Your task to perform on an android device: turn off picture-in-picture Image 0: 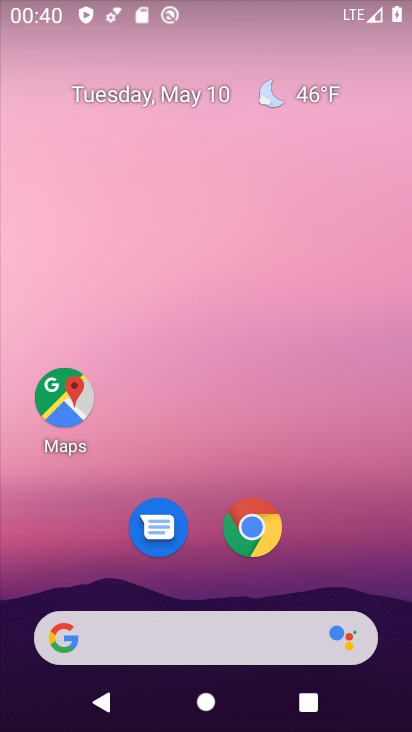
Step 0: drag from (325, 509) to (172, 267)
Your task to perform on an android device: turn off picture-in-picture Image 1: 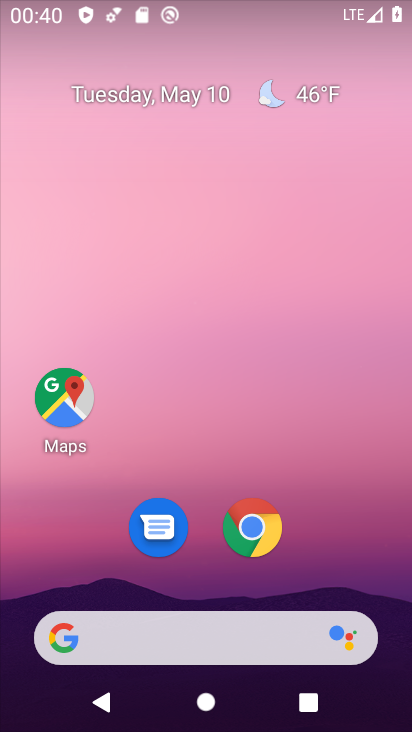
Step 1: drag from (299, 539) to (320, 82)
Your task to perform on an android device: turn off picture-in-picture Image 2: 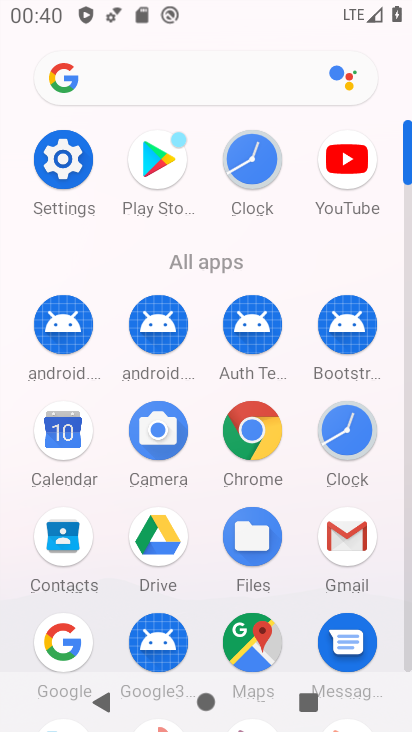
Step 2: click (72, 173)
Your task to perform on an android device: turn off picture-in-picture Image 3: 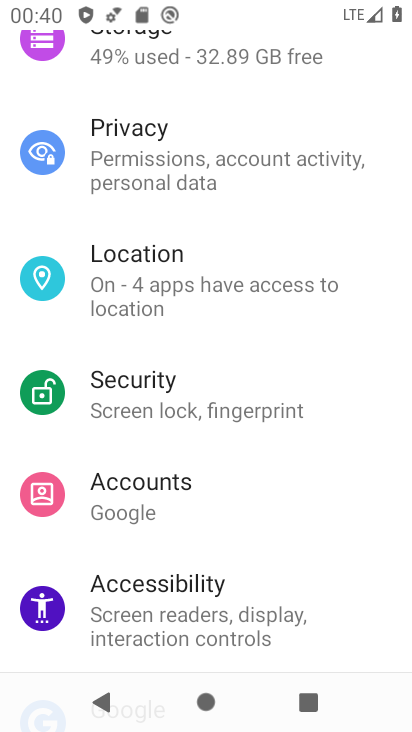
Step 3: drag from (226, 142) to (201, 532)
Your task to perform on an android device: turn off picture-in-picture Image 4: 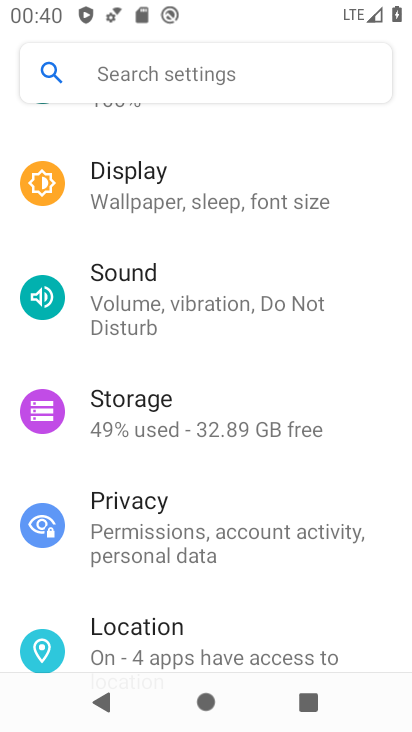
Step 4: drag from (220, 282) to (187, 493)
Your task to perform on an android device: turn off picture-in-picture Image 5: 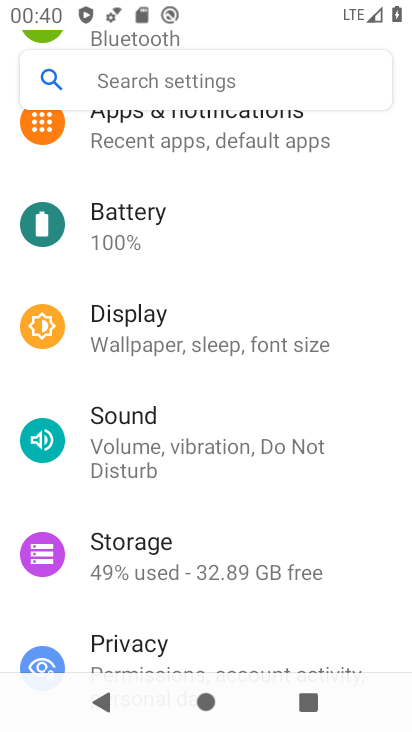
Step 5: click (208, 144)
Your task to perform on an android device: turn off picture-in-picture Image 6: 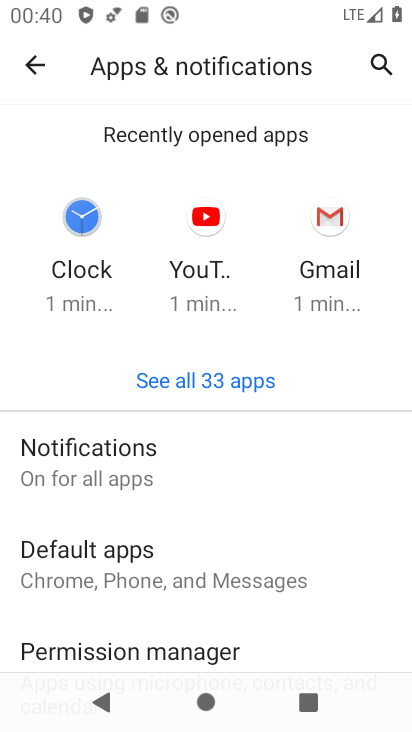
Step 6: drag from (152, 602) to (179, 350)
Your task to perform on an android device: turn off picture-in-picture Image 7: 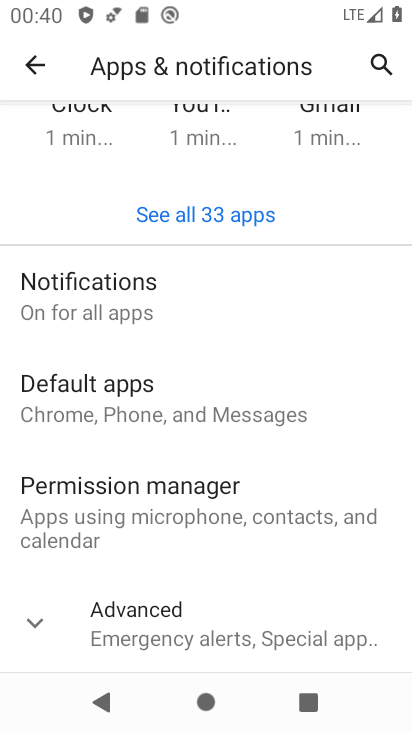
Step 7: drag from (192, 623) to (210, 444)
Your task to perform on an android device: turn off picture-in-picture Image 8: 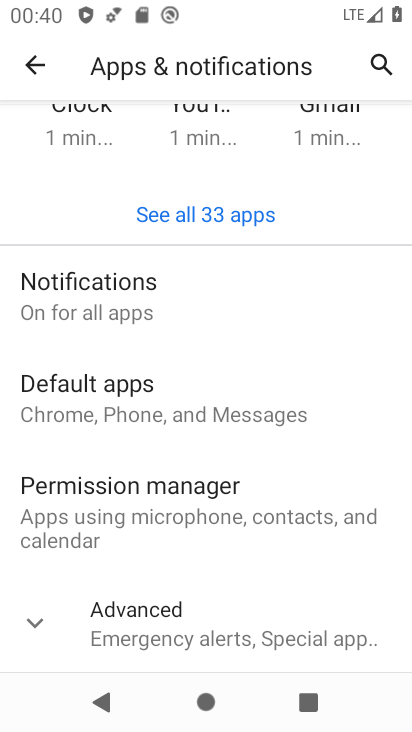
Step 8: click (179, 615)
Your task to perform on an android device: turn off picture-in-picture Image 9: 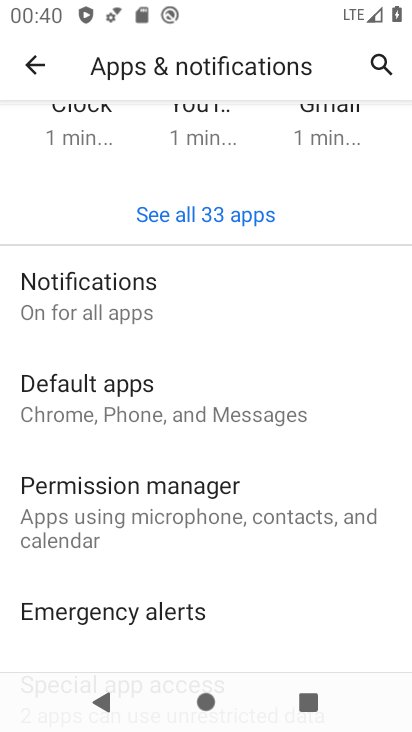
Step 9: drag from (226, 614) to (209, 335)
Your task to perform on an android device: turn off picture-in-picture Image 10: 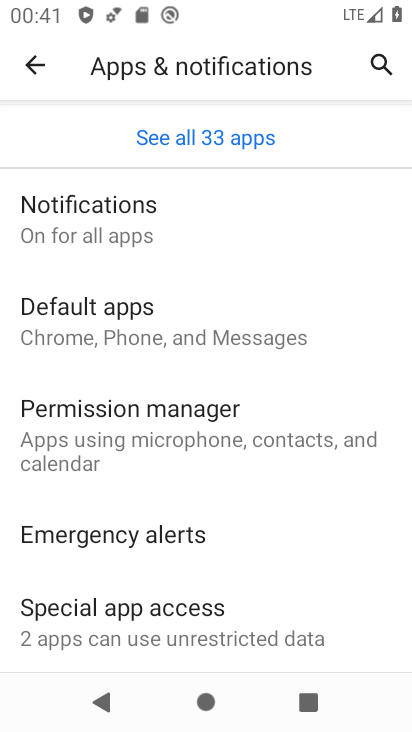
Step 10: click (145, 628)
Your task to perform on an android device: turn off picture-in-picture Image 11: 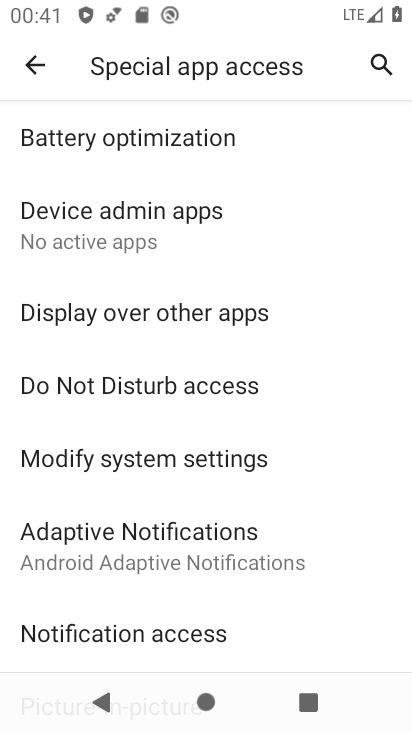
Step 11: drag from (150, 627) to (176, 352)
Your task to perform on an android device: turn off picture-in-picture Image 12: 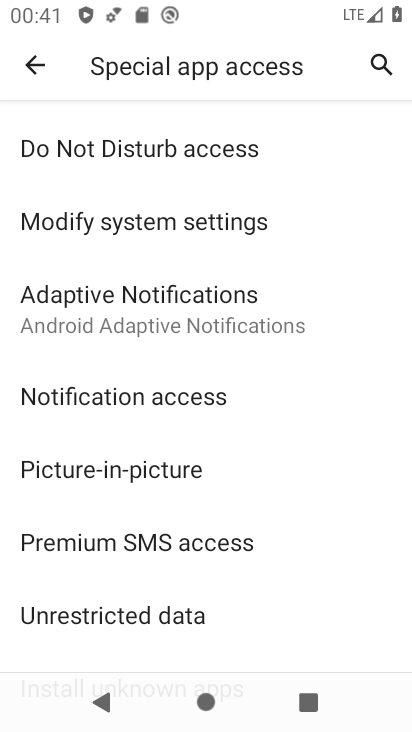
Step 12: click (142, 464)
Your task to perform on an android device: turn off picture-in-picture Image 13: 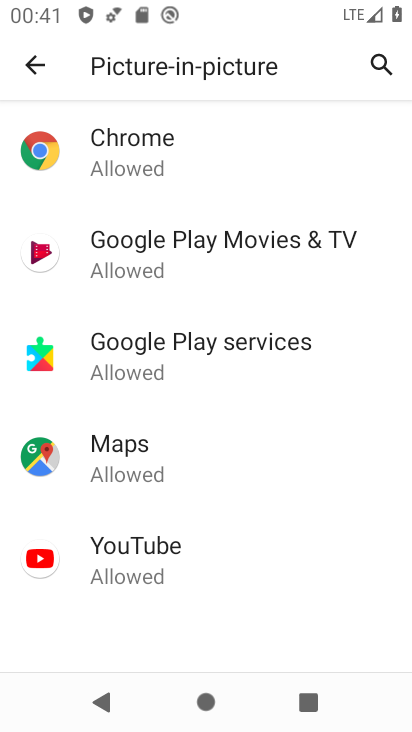
Step 13: click (168, 146)
Your task to perform on an android device: turn off picture-in-picture Image 14: 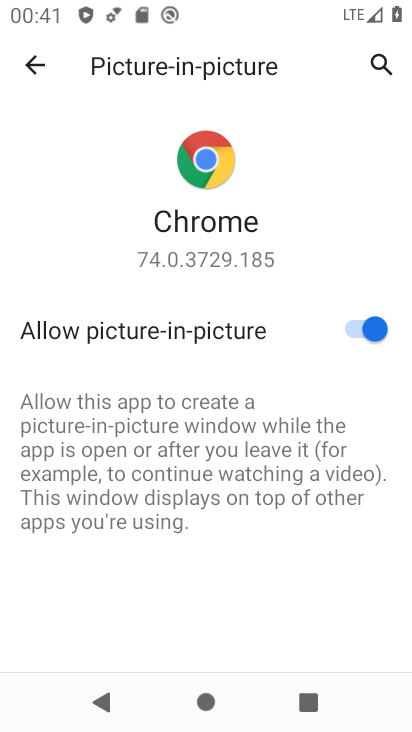
Step 14: click (372, 329)
Your task to perform on an android device: turn off picture-in-picture Image 15: 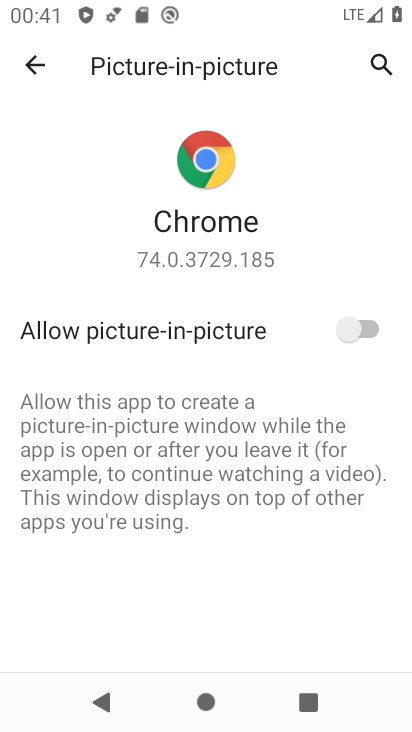
Step 15: task complete